Your task to perform on an android device: add a contact Image 0: 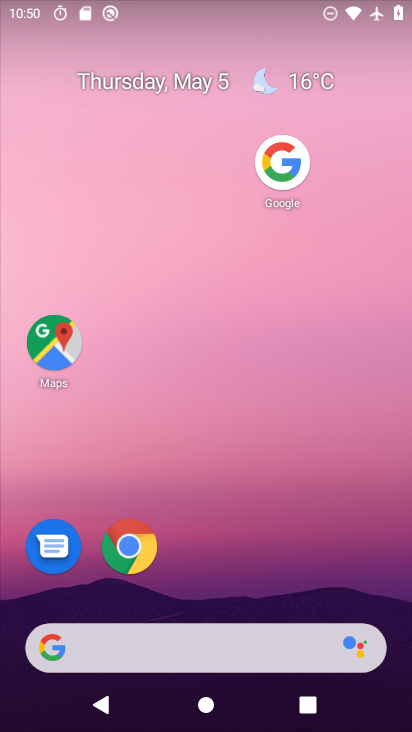
Step 0: press home button
Your task to perform on an android device: add a contact Image 1: 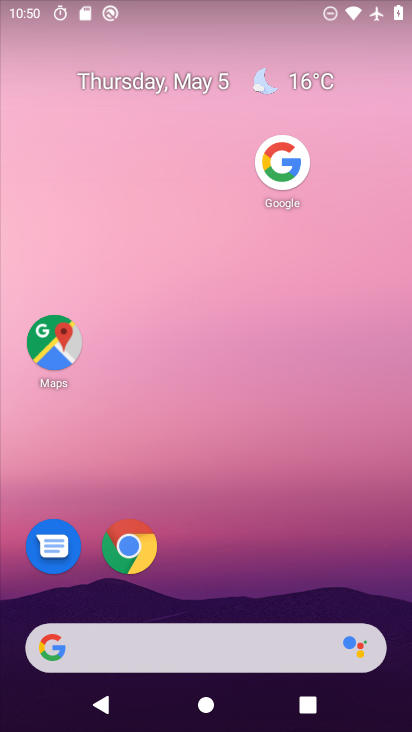
Step 1: drag from (184, 660) to (329, 43)
Your task to perform on an android device: add a contact Image 2: 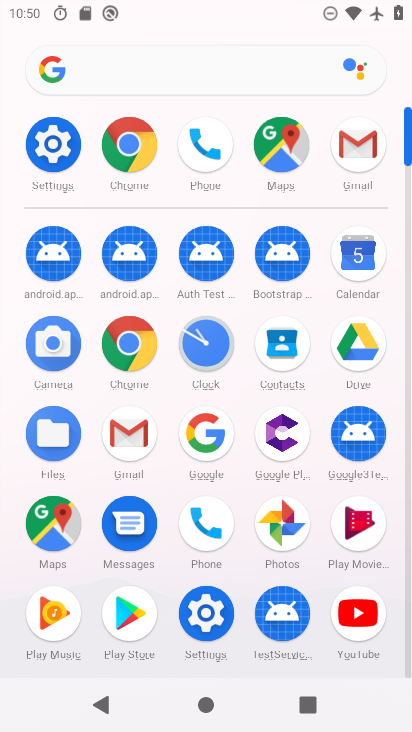
Step 2: click (276, 355)
Your task to perform on an android device: add a contact Image 3: 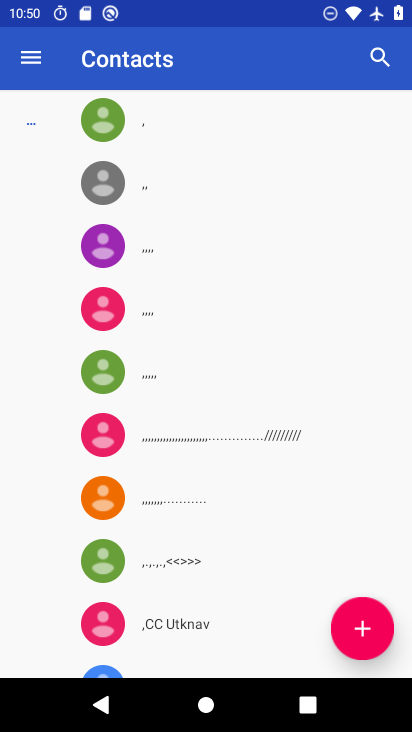
Step 3: click (362, 622)
Your task to perform on an android device: add a contact Image 4: 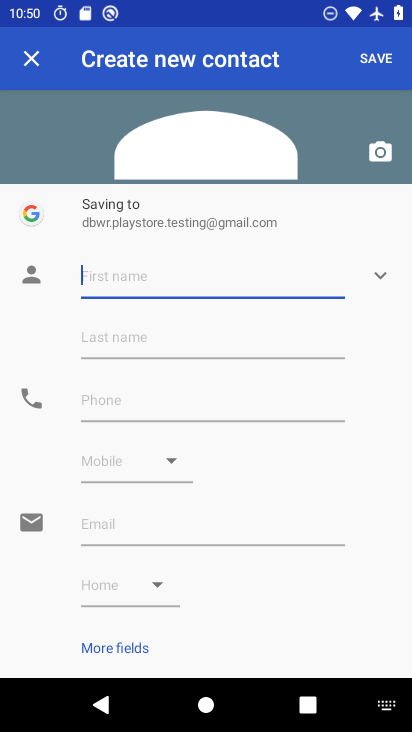
Step 4: type "bgytr"
Your task to perform on an android device: add a contact Image 5: 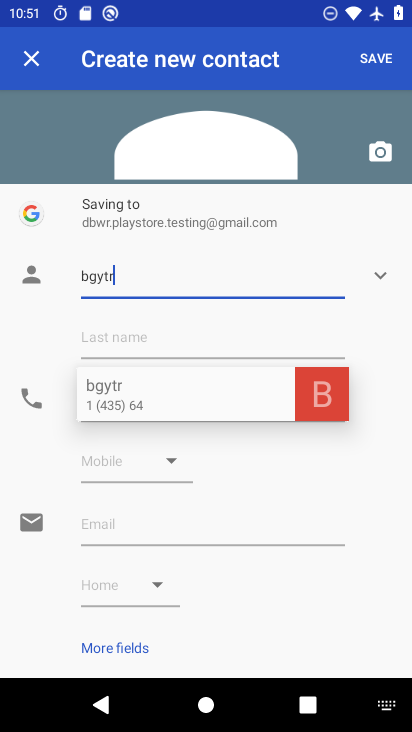
Step 5: type "bhgf"
Your task to perform on an android device: add a contact Image 6: 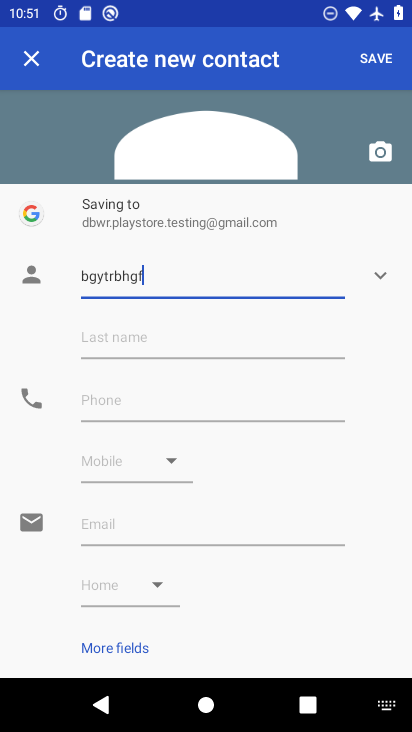
Step 6: click (114, 400)
Your task to perform on an android device: add a contact Image 7: 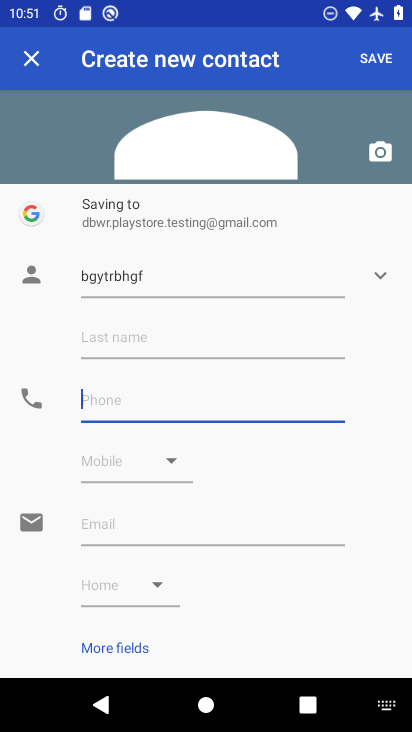
Step 7: type "43765"
Your task to perform on an android device: add a contact Image 8: 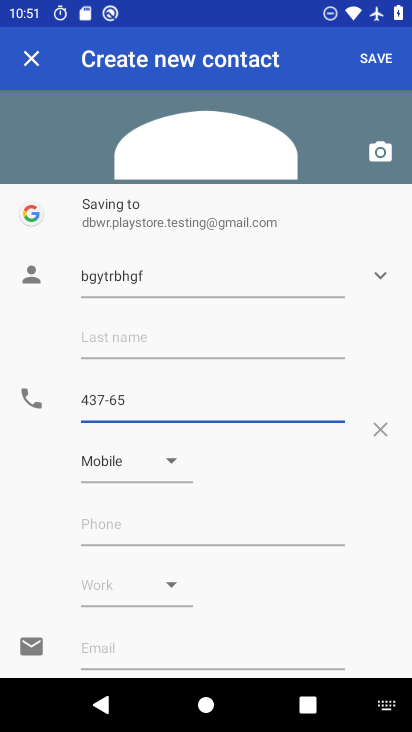
Step 8: click (381, 59)
Your task to perform on an android device: add a contact Image 9: 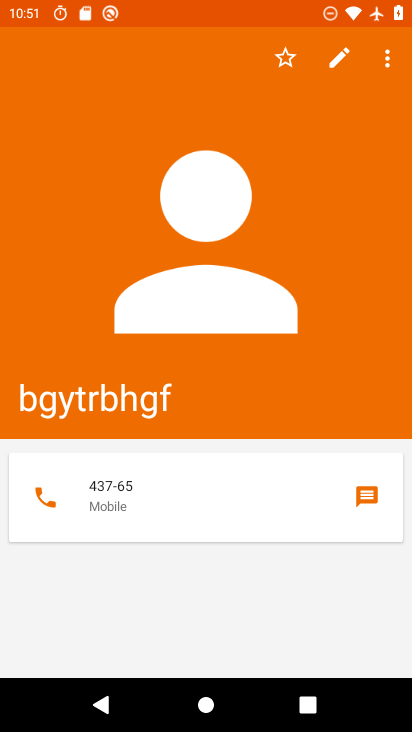
Step 9: task complete